Your task to perform on an android device: turn on sleep mode Image 0: 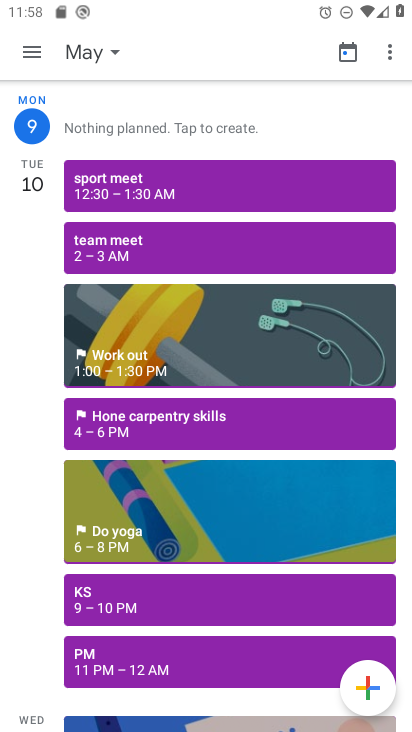
Step 0: press home button
Your task to perform on an android device: turn on sleep mode Image 1: 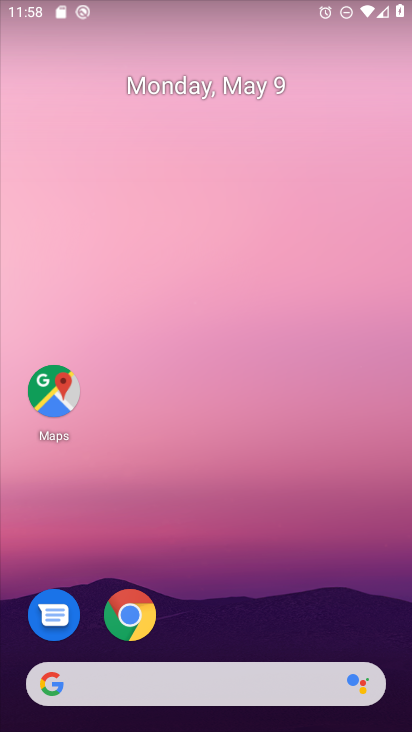
Step 1: drag from (219, 726) to (312, 214)
Your task to perform on an android device: turn on sleep mode Image 2: 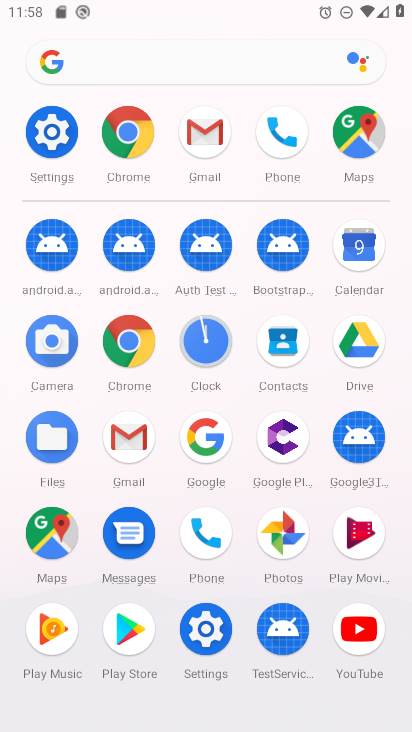
Step 2: click (42, 128)
Your task to perform on an android device: turn on sleep mode Image 3: 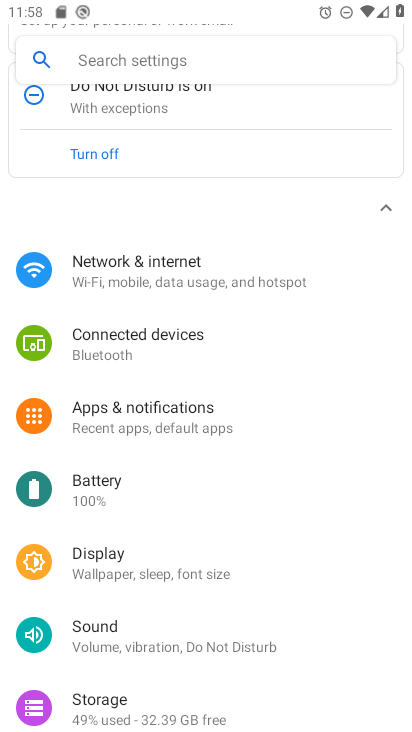
Step 3: click (125, 60)
Your task to perform on an android device: turn on sleep mode Image 4: 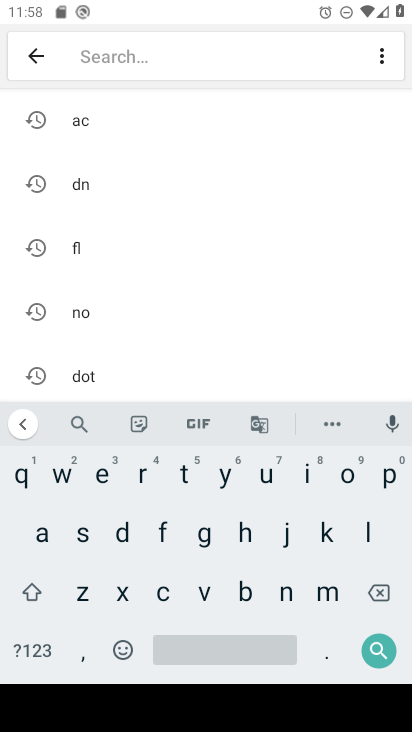
Step 4: click (81, 531)
Your task to perform on an android device: turn on sleep mode Image 5: 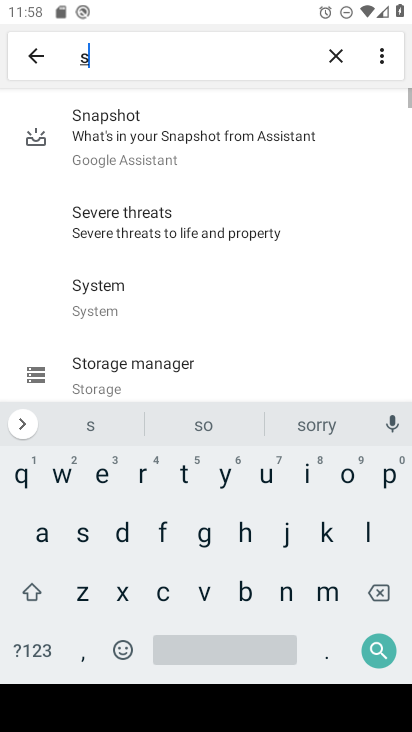
Step 5: click (367, 527)
Your task to perform on an android device: turn on sleep mode Image 6: 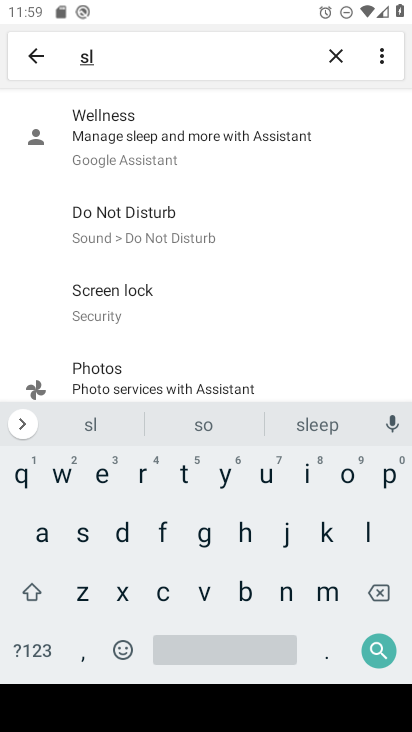
Step 6: click (108, 227)
Your task to perform on an android device: turn on sleep mode Image 7: 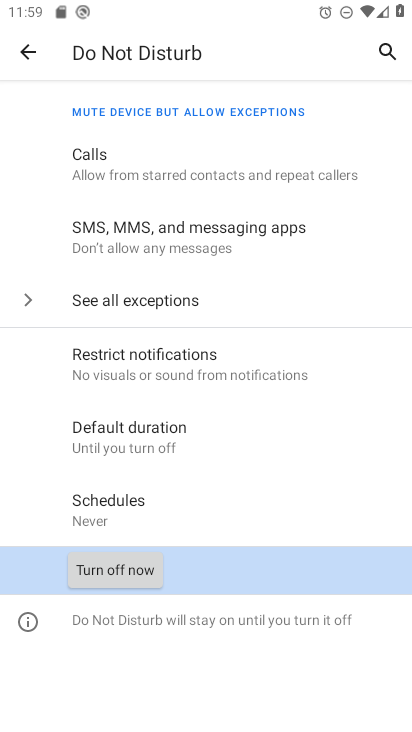
Step 7: click (88, 577)
Your task to perform on an android device: turn on sleep mode Image 8: 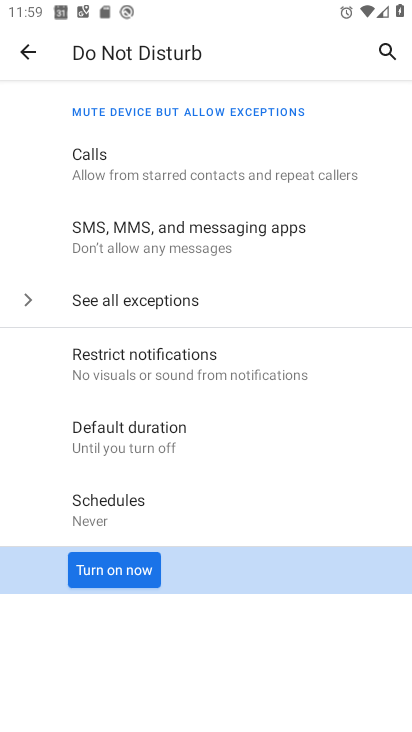
Step 8: click (87, 577)
Your task to perform on an android device: turn on sleep mode Image 9: 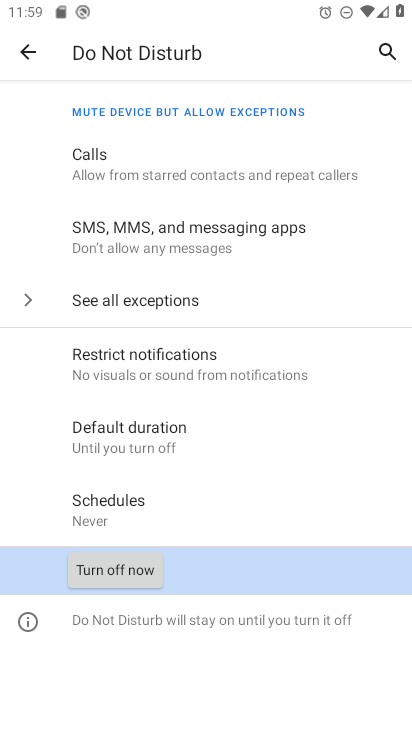
Step 9: task complete